Your task to perform on an android device: open app "WhatsApp Messenger" (install if not already installed) Image 0: 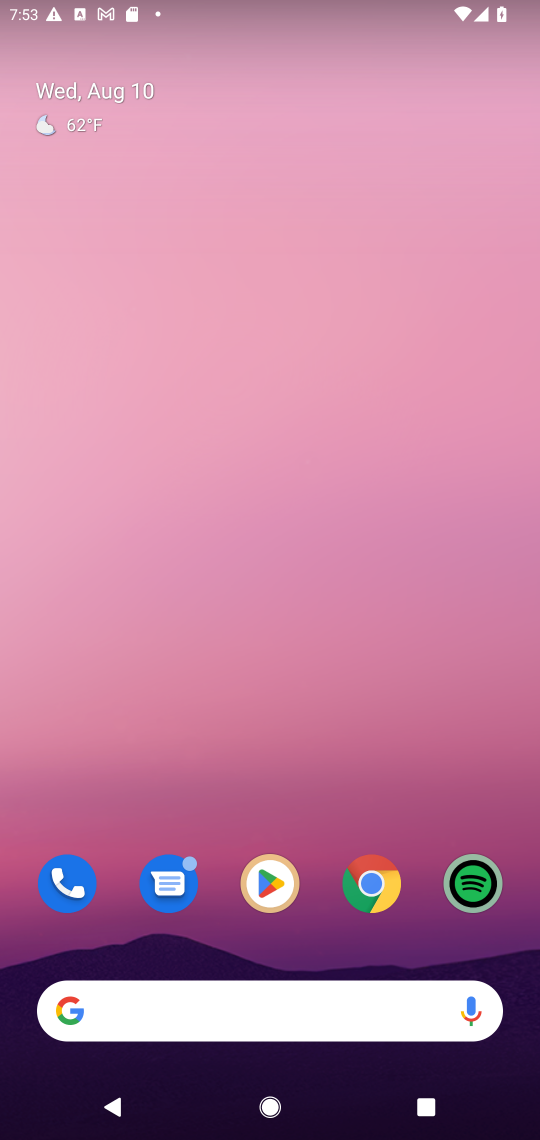
Step 0: click (285, 868)
Your task to perform on an android device: open app "WhatsApp Messenger" (install if not already installed) Image 1: 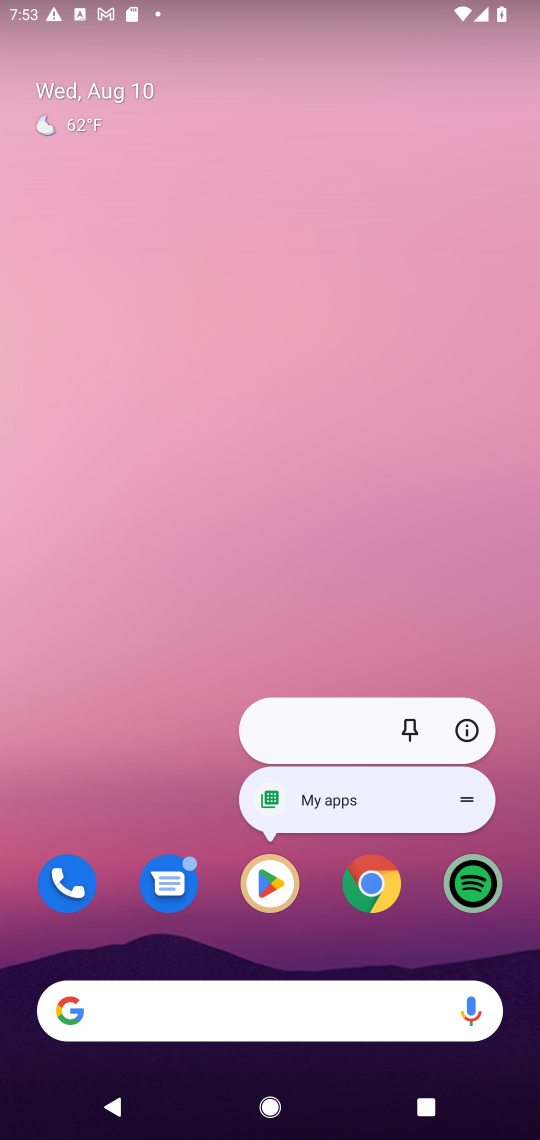
Step 1: click (261, 888)
Your task to perform on an android device: open app "WhatsApp Messenger" (install if not already installed) Image 2: 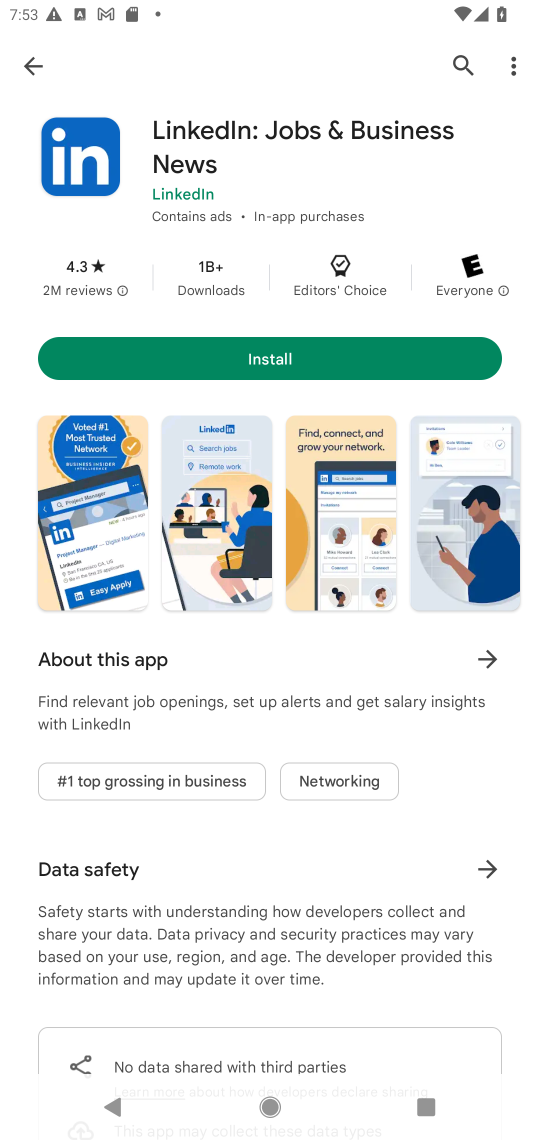
Step 2: click (460, 57)
Your task to perform on an android device: open app "WhatsApp Messenger" (install if not already installed) Image 3: 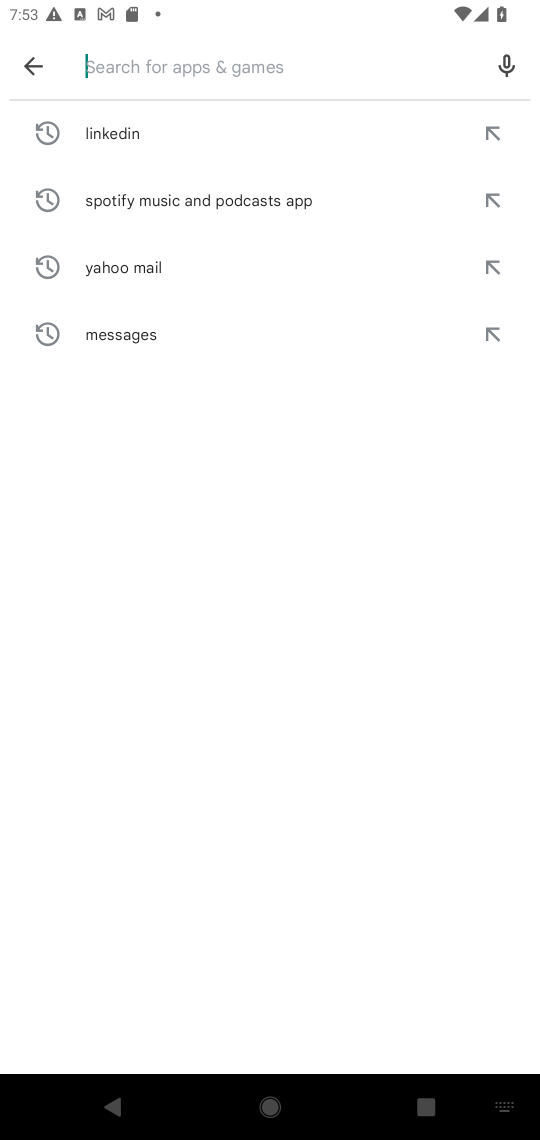
Step 3: type "WhatsApp Messenger"
Your task to perform on an android device: open app "WhatsApp Messenger" (install if not already installed) Image 4: 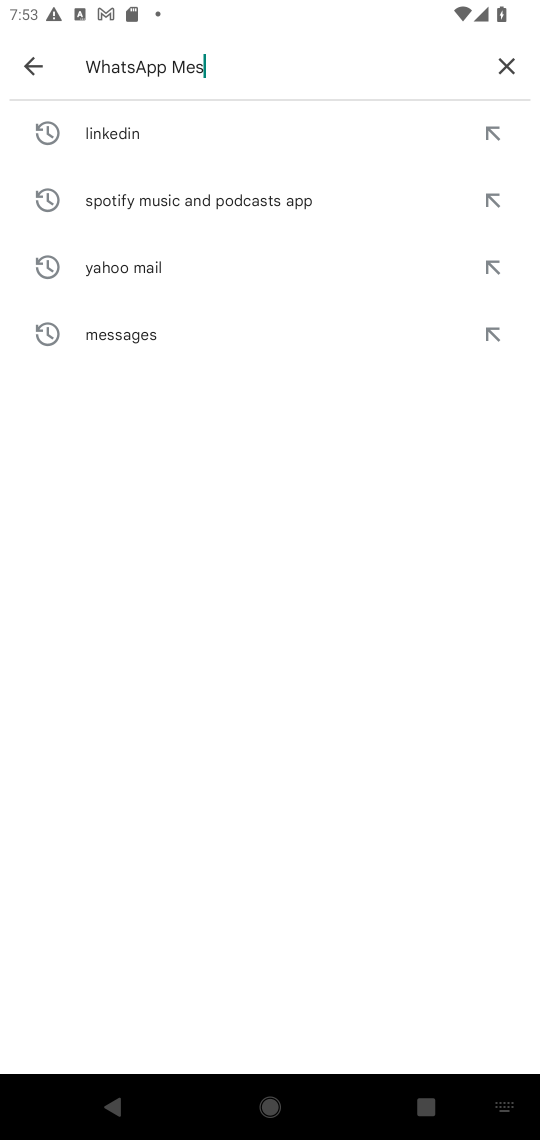
Step 4: type ""
Your task to perform on an android device: open app "WhatsApp Messenger" (install if not already installed) Image 5: 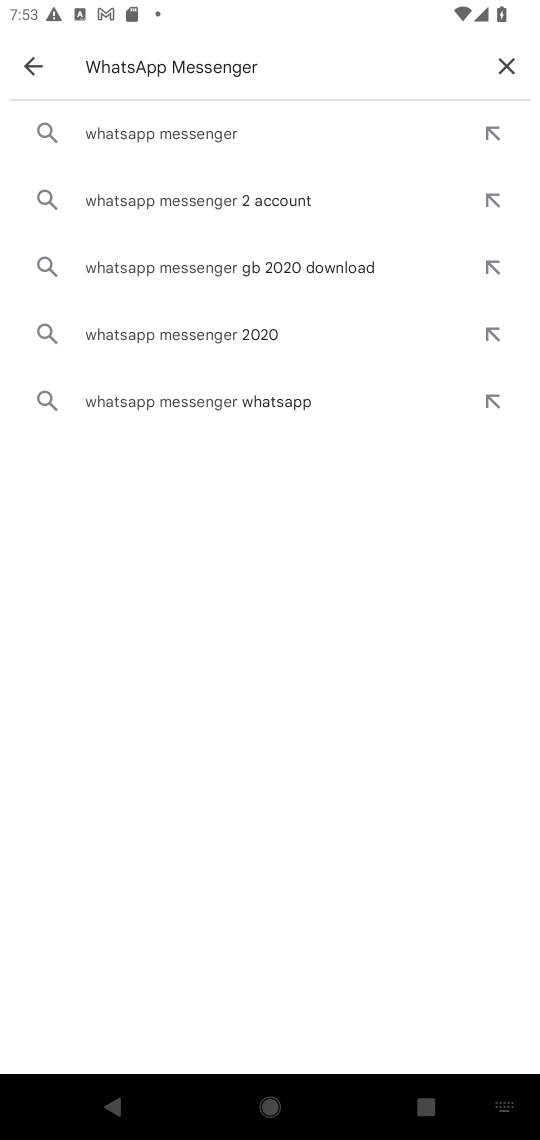
Step 5: click (184, 119)
Your task to perform on an android device: open app "WhatsApp Messenger" (install if not already installed) Image 6: 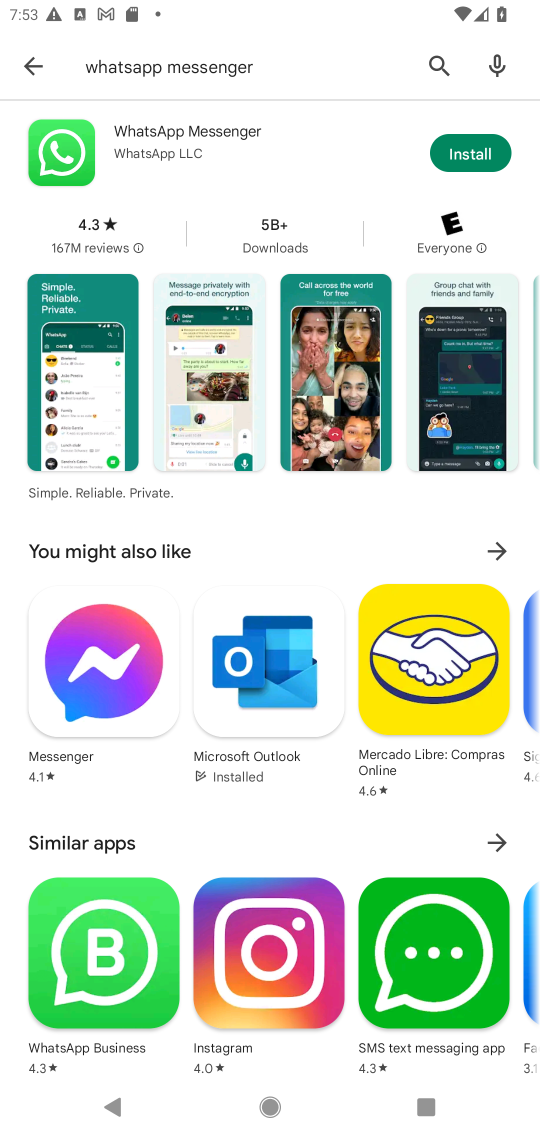
Step 6: click (456, 149)
Your task to perform on an android device: open app "WhatsApp Messenger" (install if not already installed) Image 7: 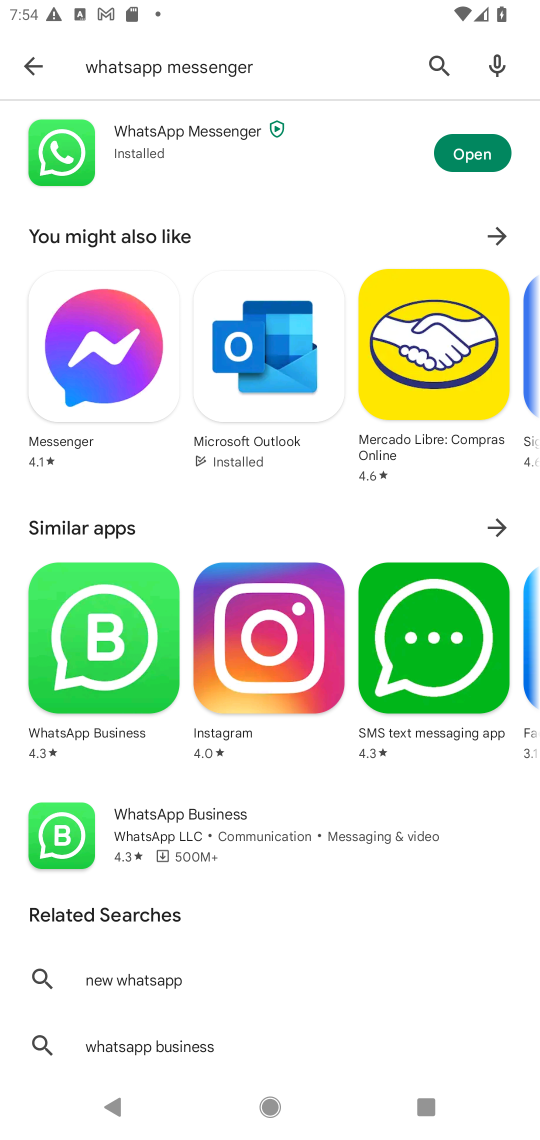
Step 7: click (467, 164)
Your task to perform on an android device: open app "WhatsApp Messenger" (install if not already installed) Image 8: 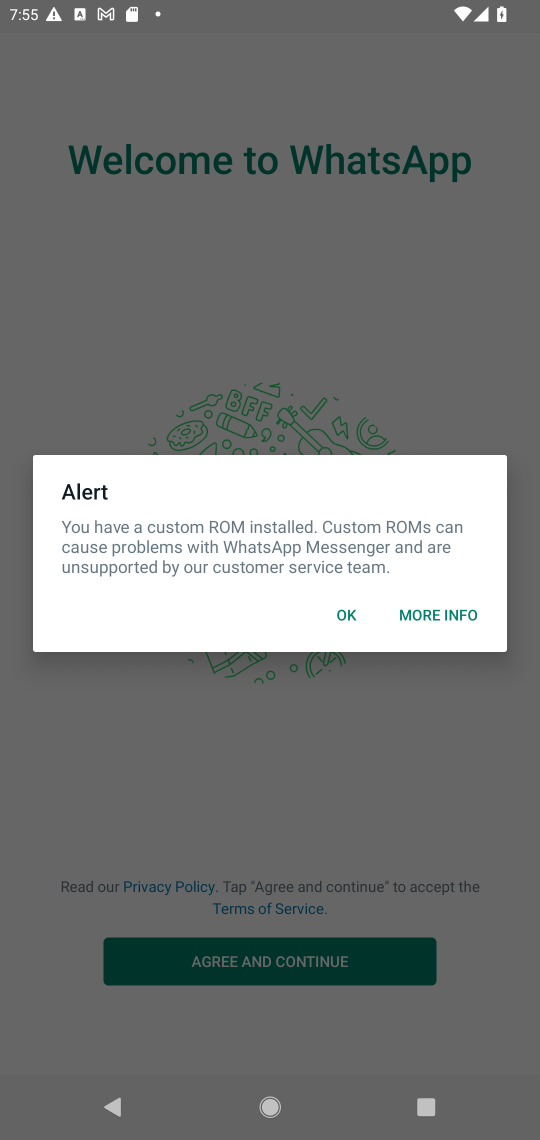
Step 8: task complete